Your task to perform on an android device: find which apps use the phone's location Image 0: 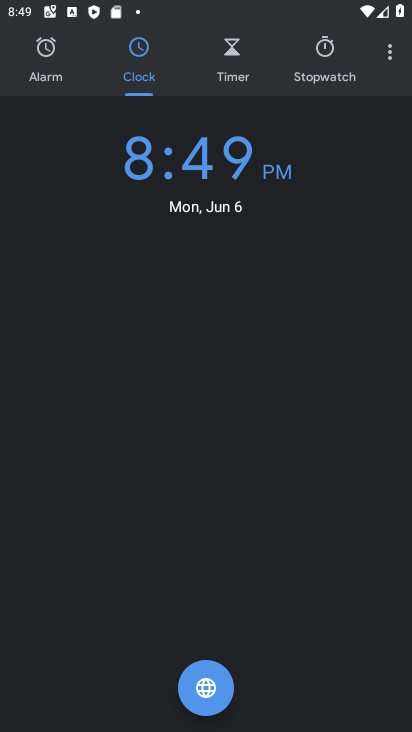
Step 0: press home button
Your task to perform on an android device: find which apps use the phone's location Image 1: 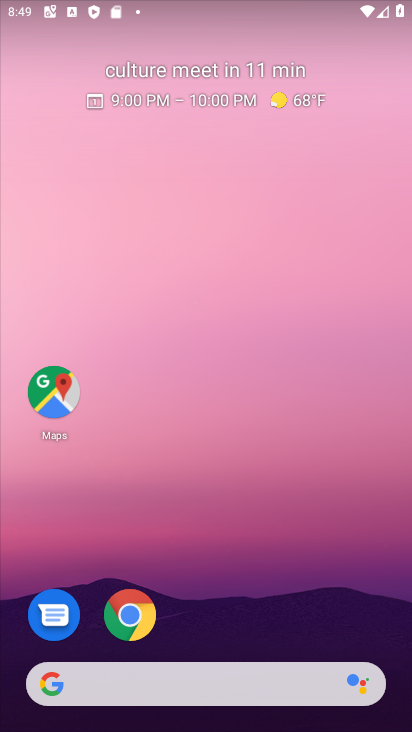
Step 1: drag from (396, 716) to (339, 8)
Your task to perform on an android device: find which apps use the phone's location Image 2: 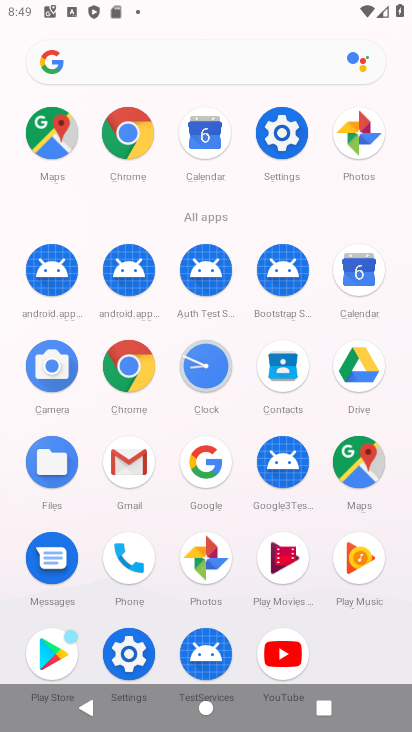
Step 2: click (277, 122)
Your task to perform on an android device: find which apps use the phone's location Image 3: 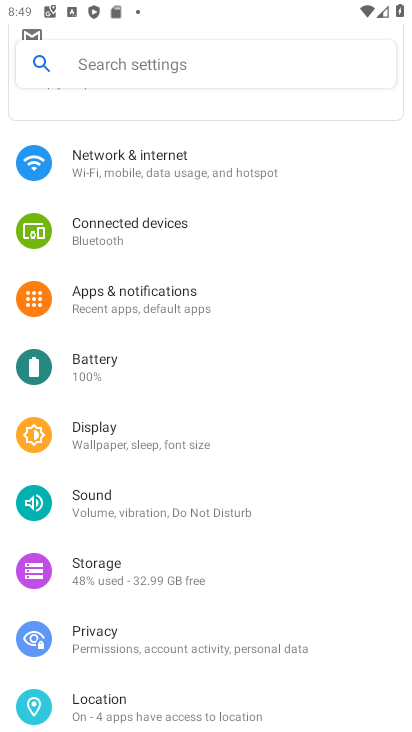
Step 3: click (115, 699)
Your task to perform on an android device: find which apps use the phone's location Image 4: 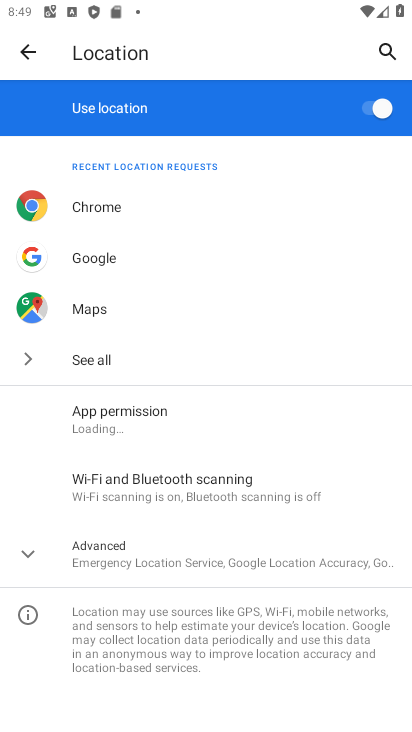
Step 4: click (83, 422)
Your task to perform on an android device: find which apps use the phone's location Image 5: 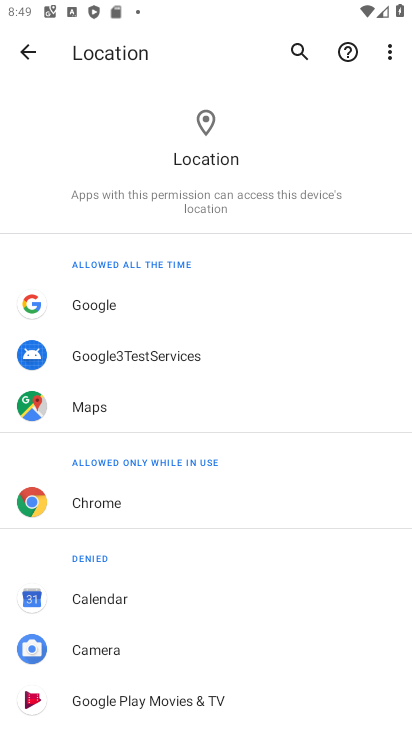
Step 5: task complete